Your task to perform on an android device: Check the weather Image 0: 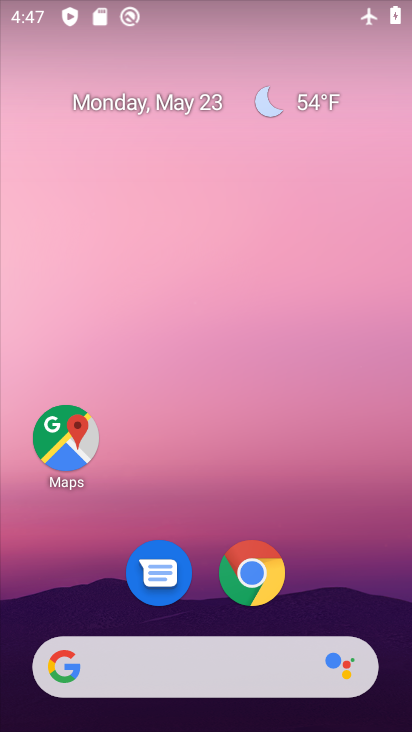
Step 0: click (257, 103)
Your task to perform on an android device: Check the weather Image 1: 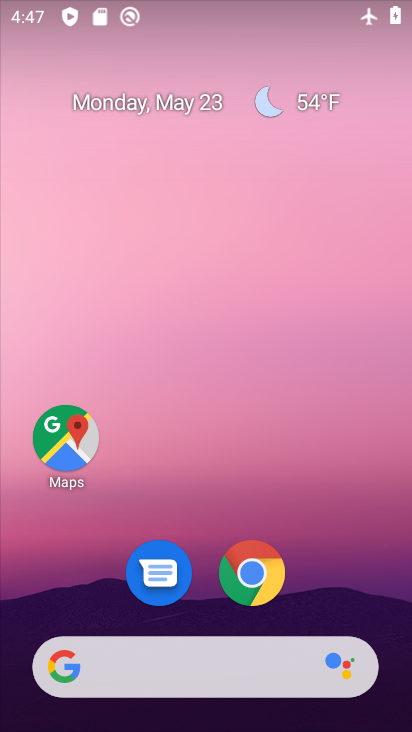
Step 1: click (262, 100)
Your task to perform on an android device: Check the weather Image 2: 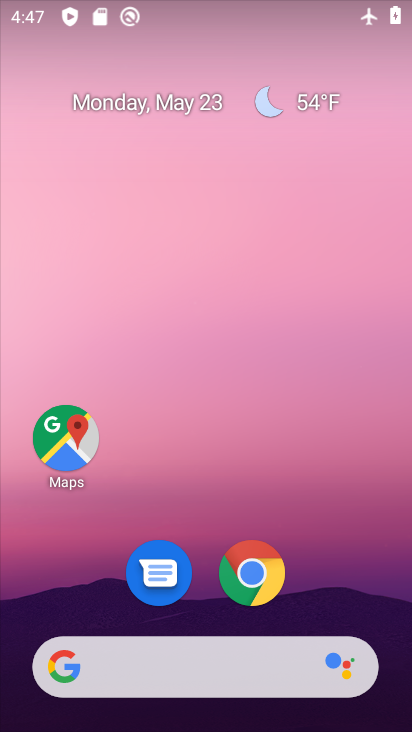
Step 2: click (271, 98)
Your task to perform on an android device: Check the weather Image 3: 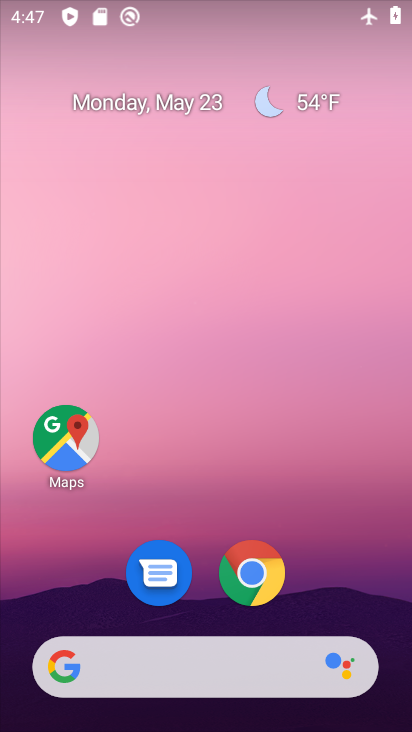
Step 3: click (258, 97)
Your task to perform on an android device: Check the weather Image 4: 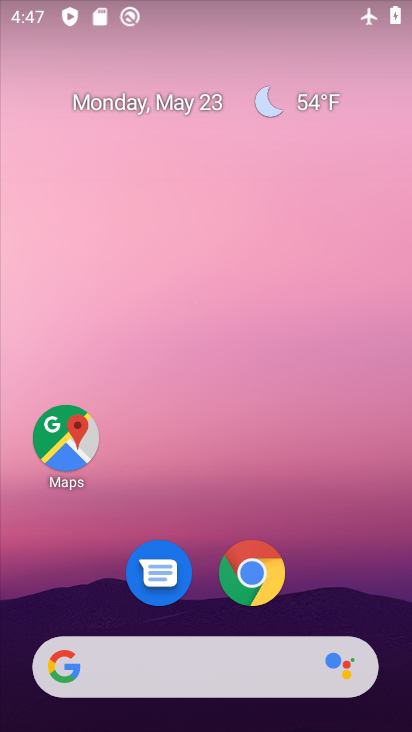
Step 4: drag from (201, 724) to (184, 241)
Your task to perform on an android device: Check the weather Image 5: 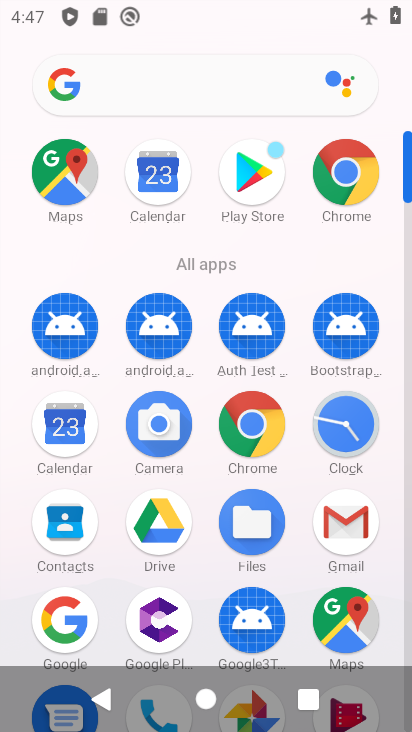
Step 5: click (54, 616)
Your task to perform on an android device: Check the weather Image 6: 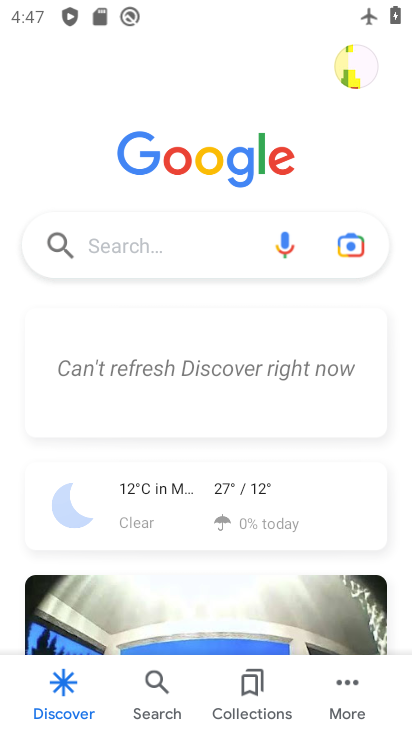
Step 6: click (140, 504)
Your task to perform on an android device: Check the weather Image 7: 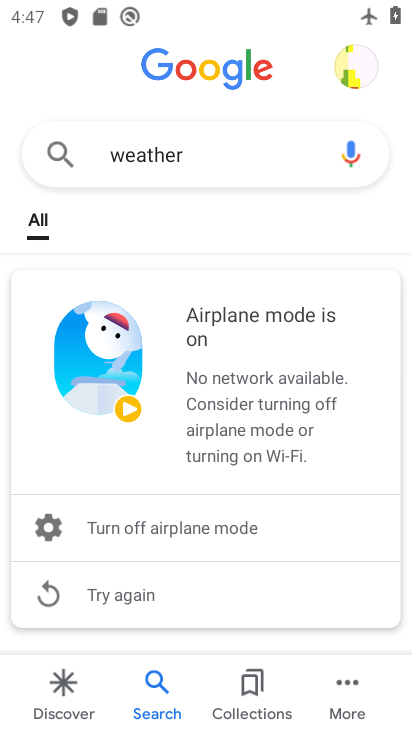
Step 7: task complete